Your task to perform on an android device: Turn on the flashlight Image 0: 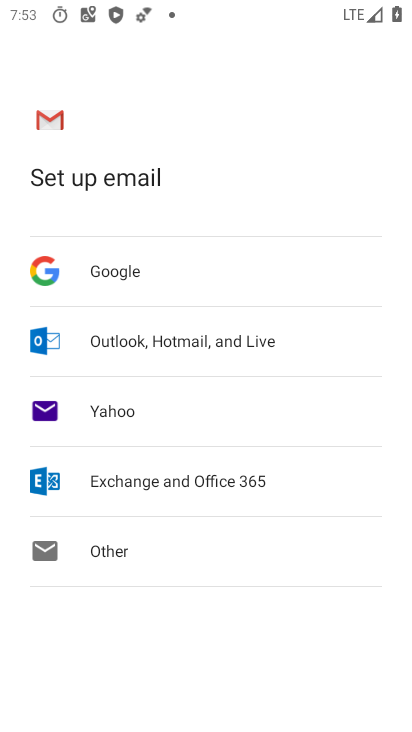
Step 0: press home button
Your task to perform on an android device: Turn on the flashlight Image 1: 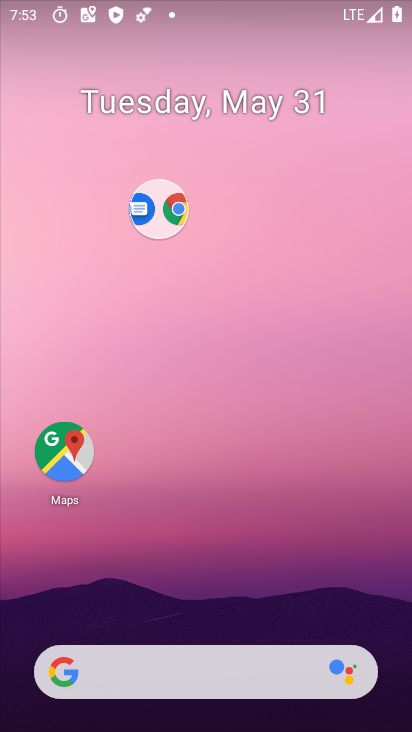
Step 1: task complete